Your task to perform on an android device: turn on wifi Image 0: 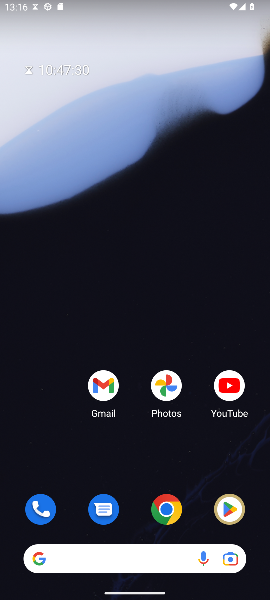
Step 0: press home button
Your task to perform on an android device: turn on wifi Image 1: 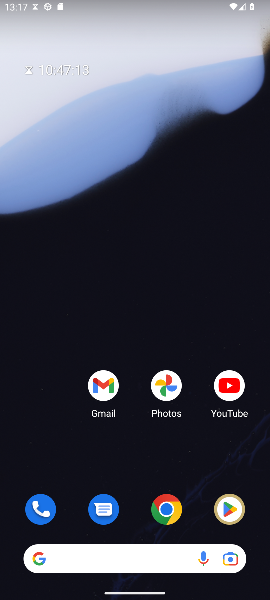
Step 1: drag from (142, 481) to (140, 26)
Your task to perform on an android device: turn on wifi Image 2: 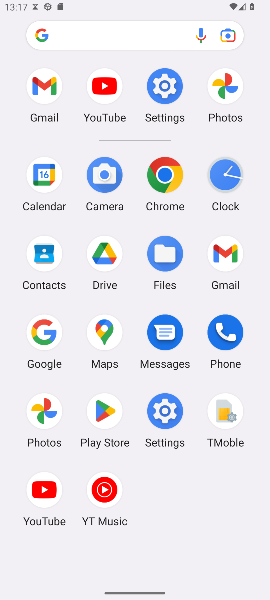
Step 2: click (166, 88)
Your task to perform on an android device: turn on wifi Image 3: 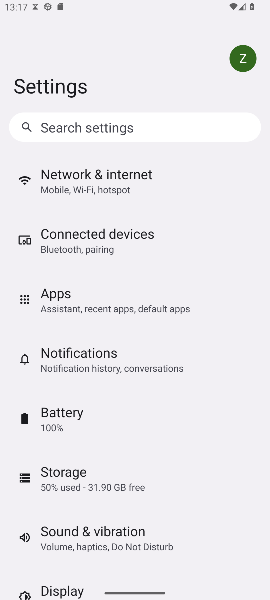
Step 3: click (77, 185)
Your task to perform on an android device: turn on wifi Image 4: 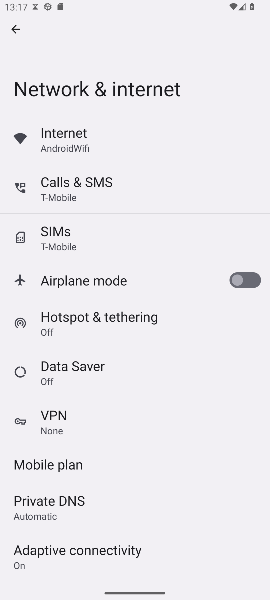
Step 4: click (75, 136)
Your task to perform on an android device: turn on wifi Image 5: 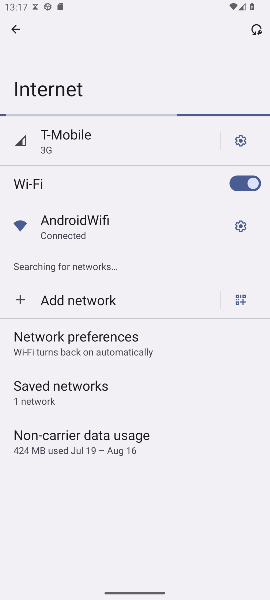
Step 5: task complete